Your task to perform on an android device: empty trash in the gmail app Image 0: 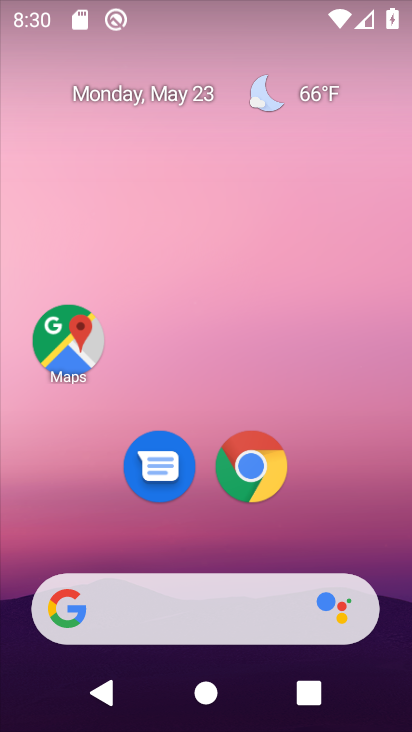
Step 0: drag from (217, 312) to (215, 103)
Your task to perform on an android device: empty trash in the gmail app Image 1: 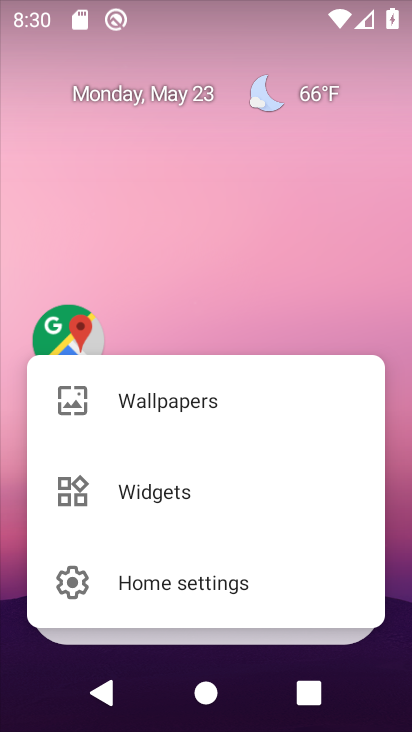
Step 1: click (275, 256)
Your task to perform on an android device: empty trash in the gmail app Image 2: 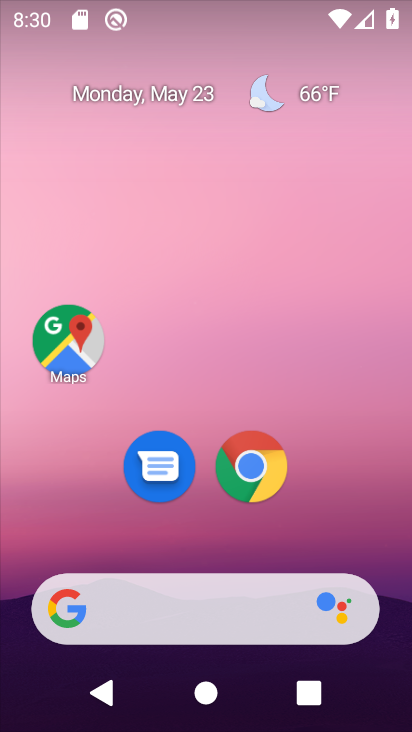
Step 2: drag from (207, 483) to (240, 56)
Your task to perform on an android device: empty trash in the gmail app Image 3: 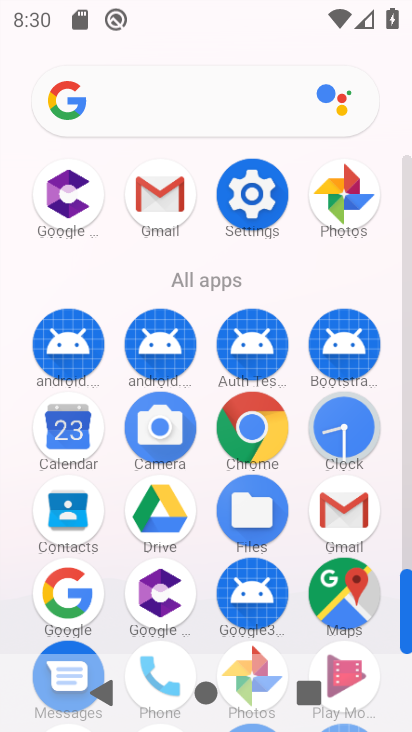
Step 3: click (351, 520)
Your task to perform on an android device: empty trash in the gmail app Image 4: 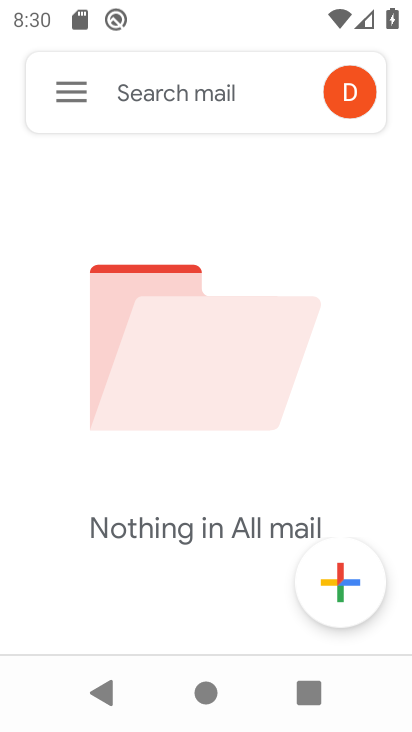
Step 4: click (67, 88)
Your task to perform on an android device: empty trash in the gmail app Image 5: 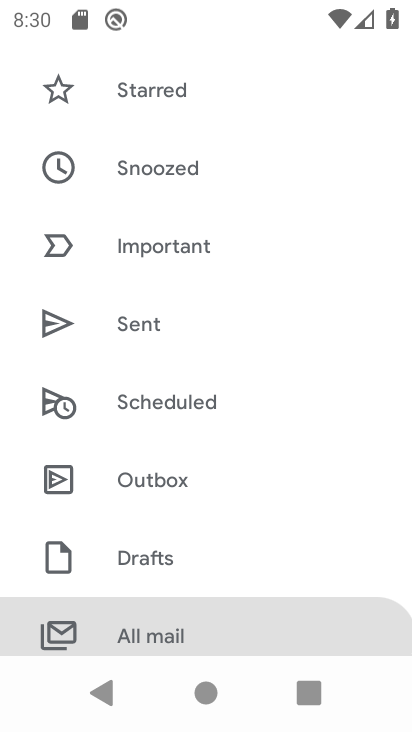
Step 5: drag from (193, 590) to (208, 144)
Your task to perform on an android device: empty trash in the gmail app Image 6: 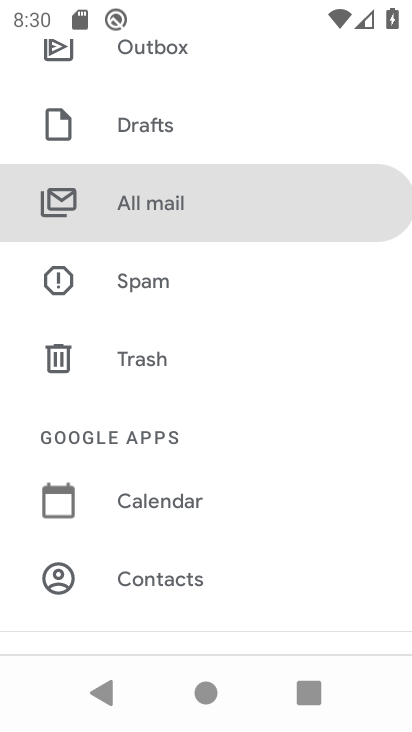
Step 6: click (130, 363)
Your task to perform on an android device: empty trash in the gmail app Image 7: 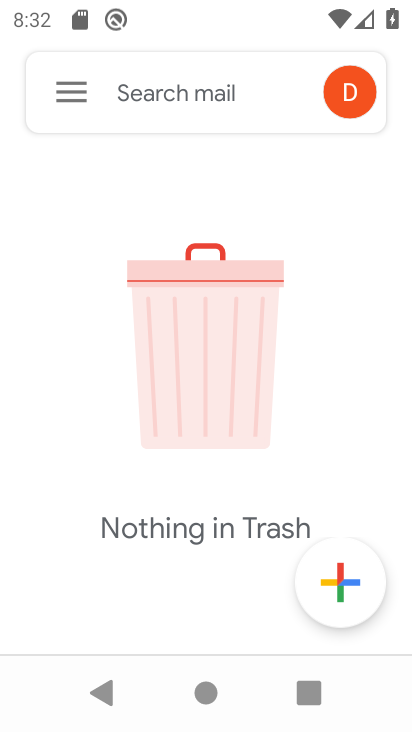
Step 7: task complete